Your task to perform on an android device: Open the web browser Image 0: 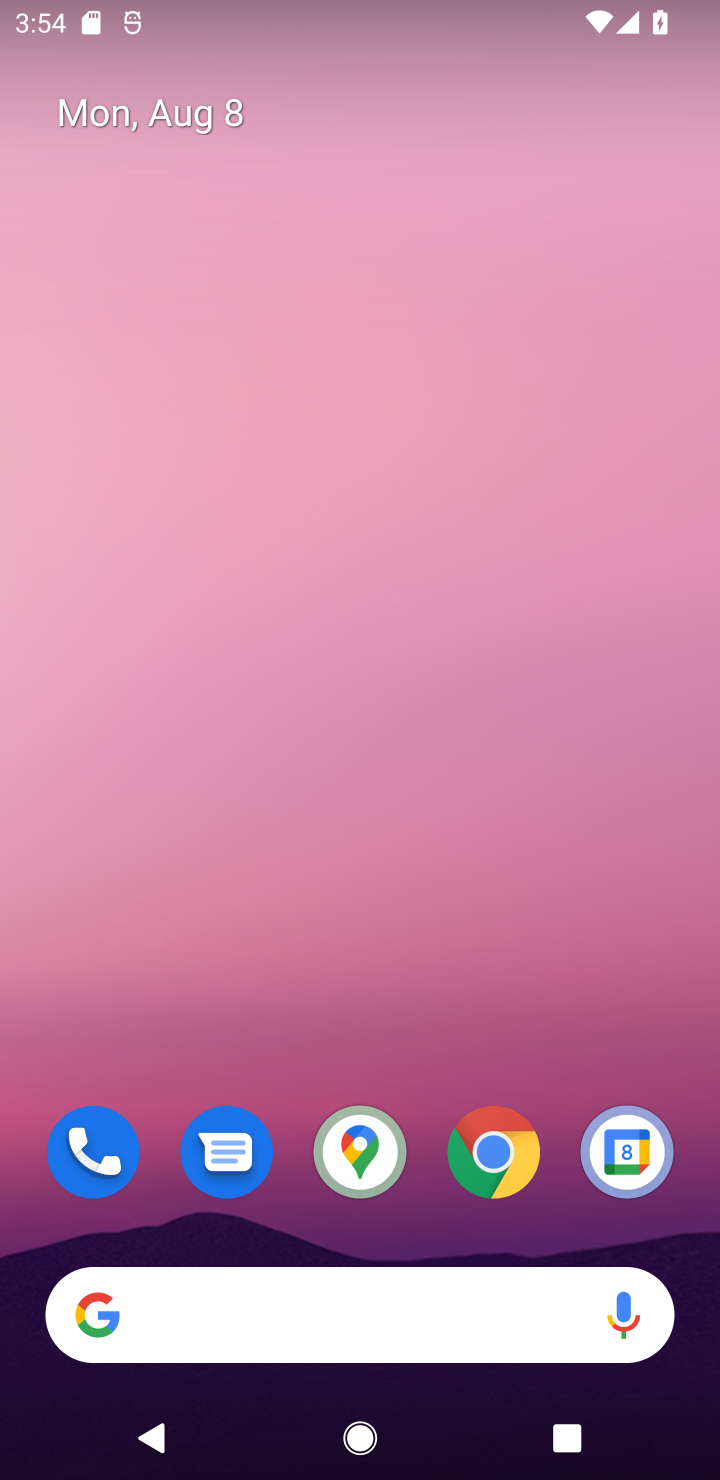
Step 0: click (482, 1158)
Your task to perform on an android device: Open the web browser Image 1: 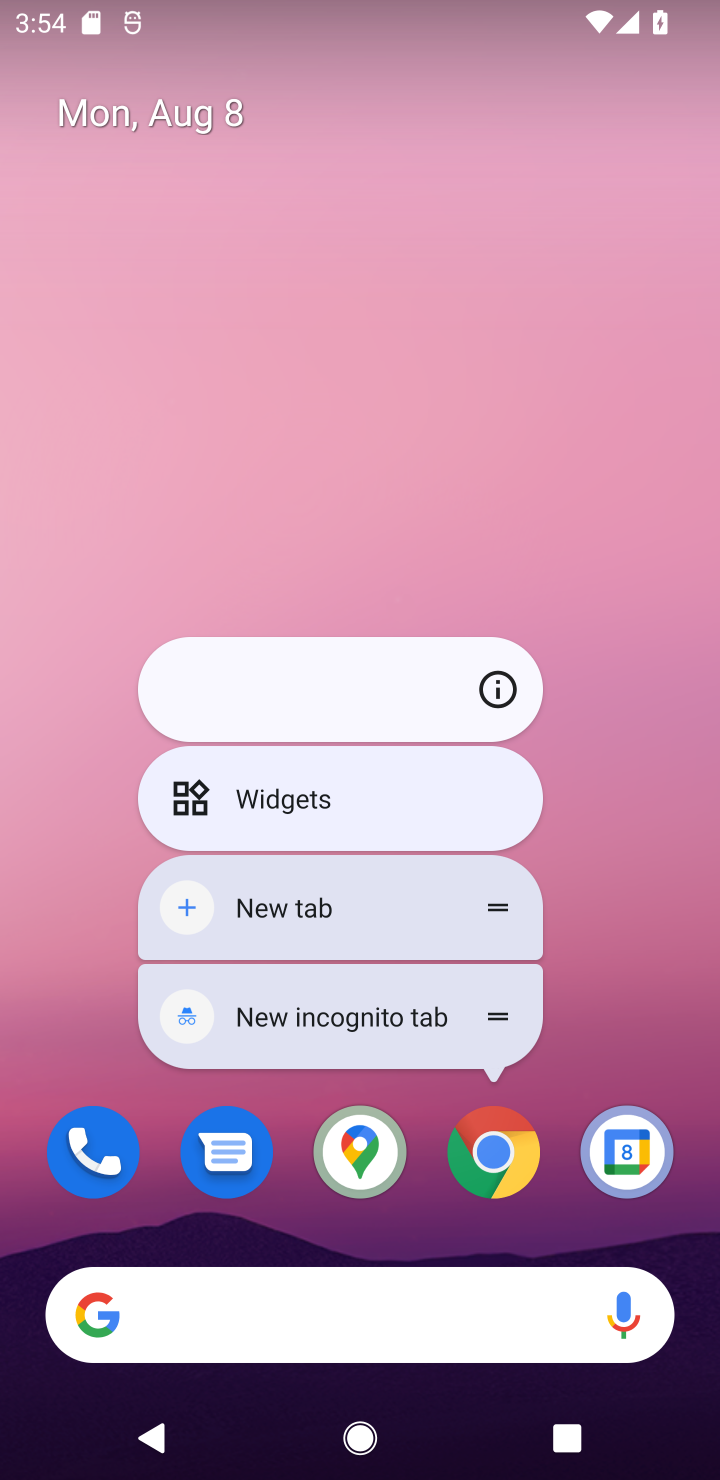
Step 1: click (478, 1158)
Your task to perform on an android device: Open the web browser Image 2: 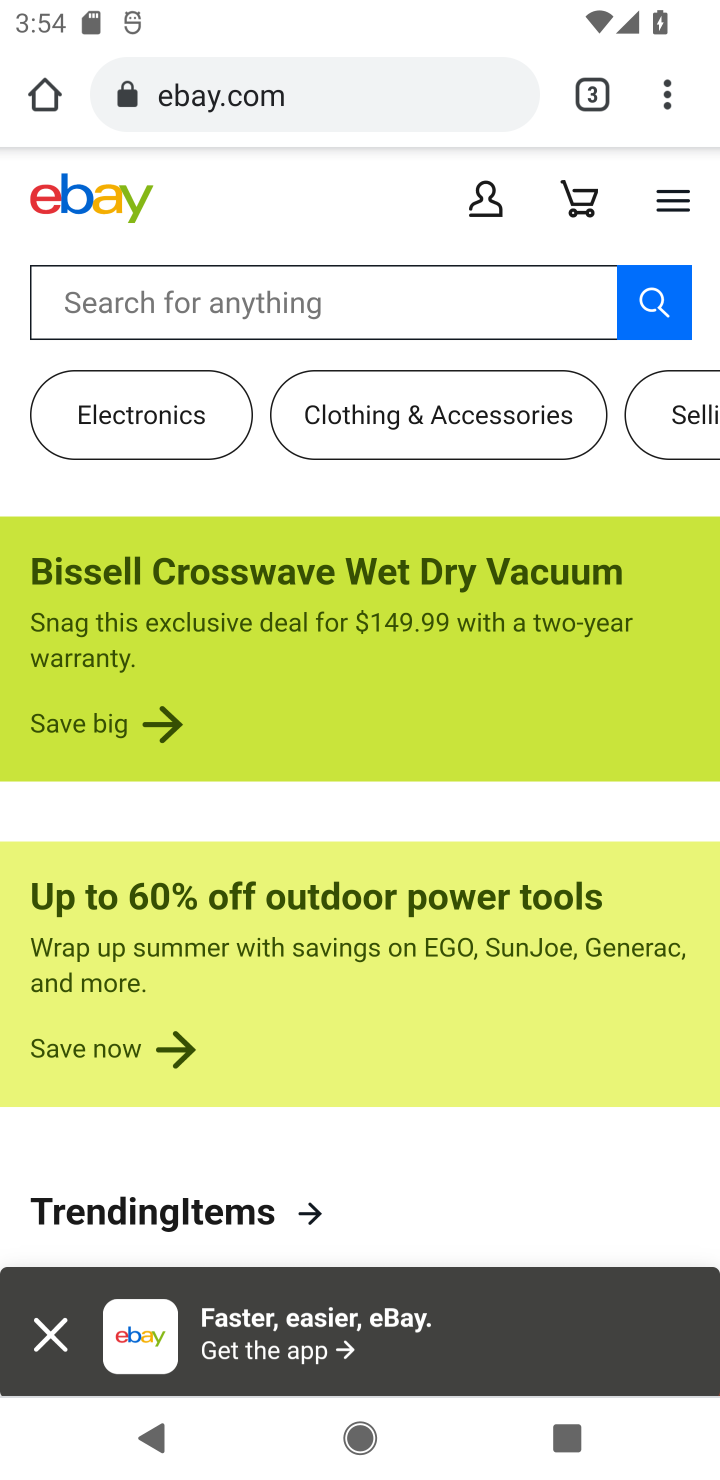
Step 2: task complete